Your task to perform on an android device: turn off translation in the chrome app Image 0: 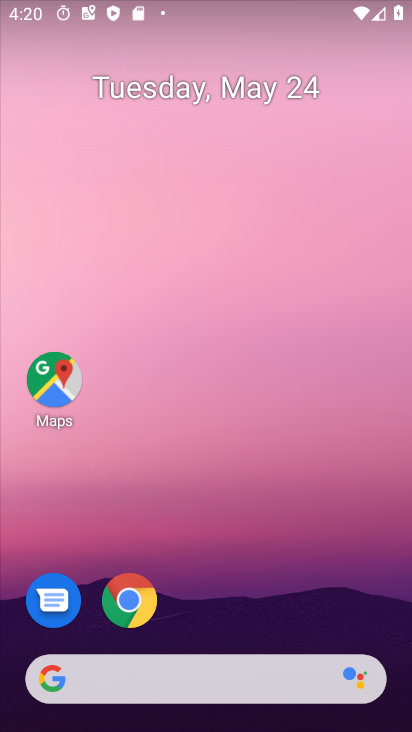
Step 0: click (140, 599)
Your task to perform on an android device: turn off translation in the chrome app Image 1: 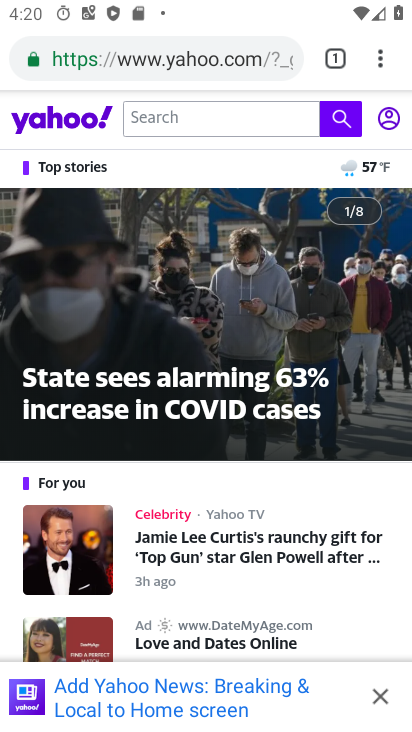
Step 1: click (381, 61)
Your task to perform on an android device: turn off translation in the chrome app Image 2: 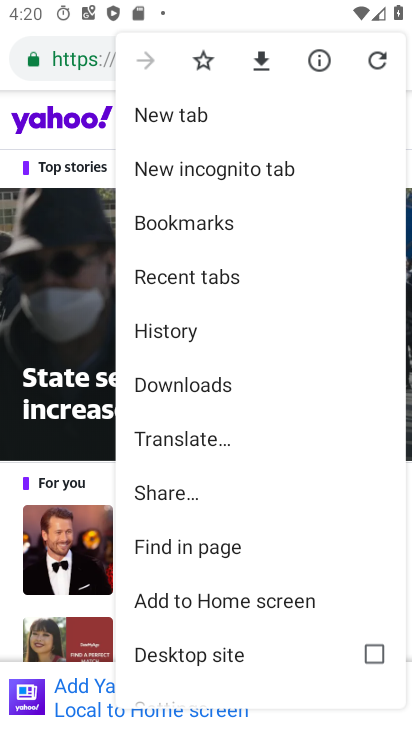
Step 2: drag from (246, 559) to (251, 303)
Your task to perform on an android device: turn off translation in the chrome app Image 3: 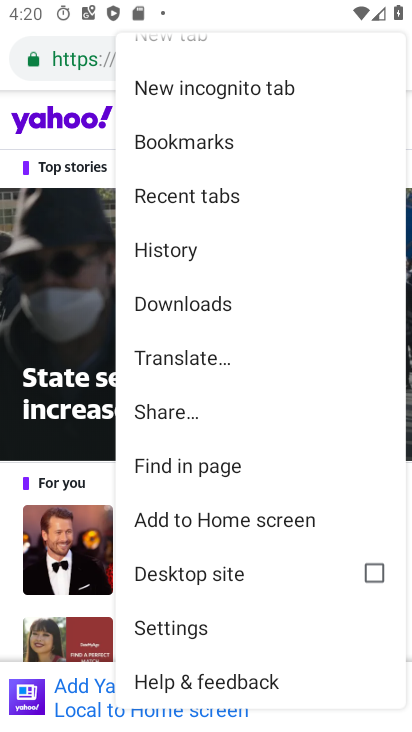
Step 3: click (170, 629)
Your task to perform on an android device: turn off translation in the chrome app Image 4: 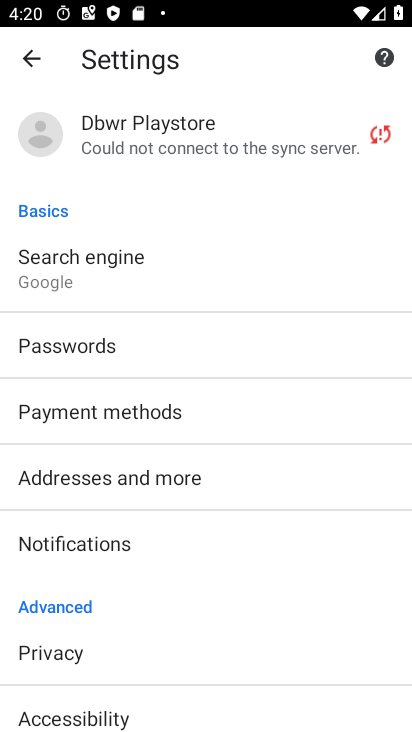
Step 4: drag from (170, 619) to (178, 138)
Your task to perform on an android device: turn off translation in the chrome app Image 5: 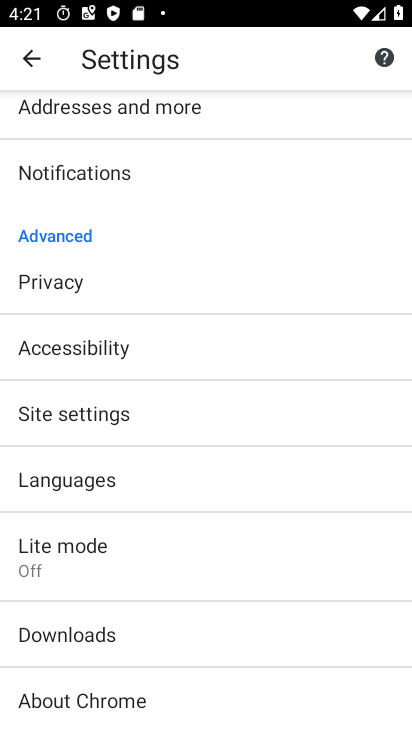
Step 5: click (69, 484)
Your task to perform on an android device: turn off translation in the chrome app Image 6: 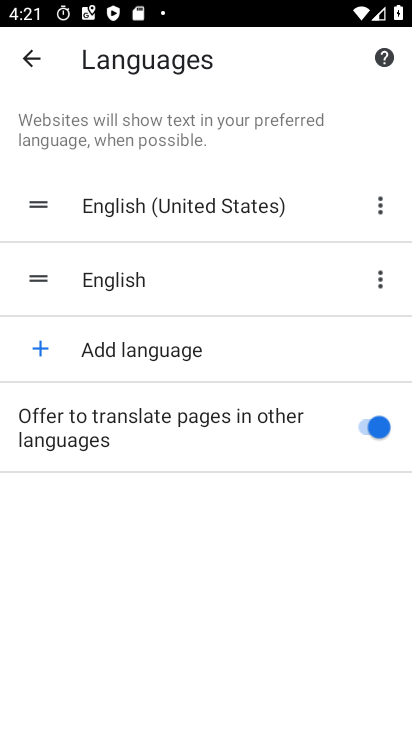
Step 6: click (376, 432)
Your task to perform on an android device: turn off translation in the chrome app Image 7: 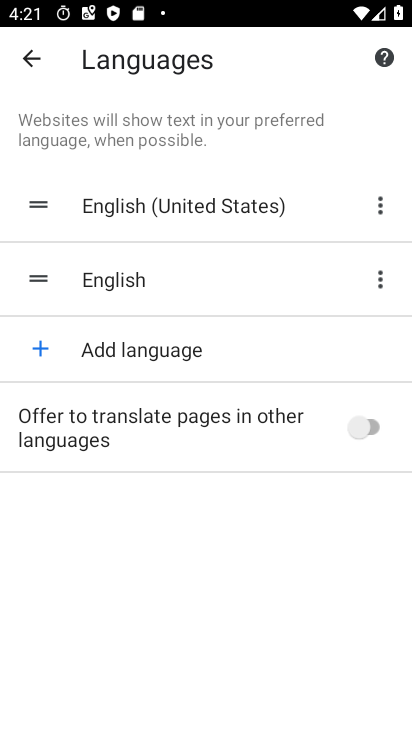
Step 7: task complete